Your task to perform on an android device: Show me the alarms in the clock app Image 0: 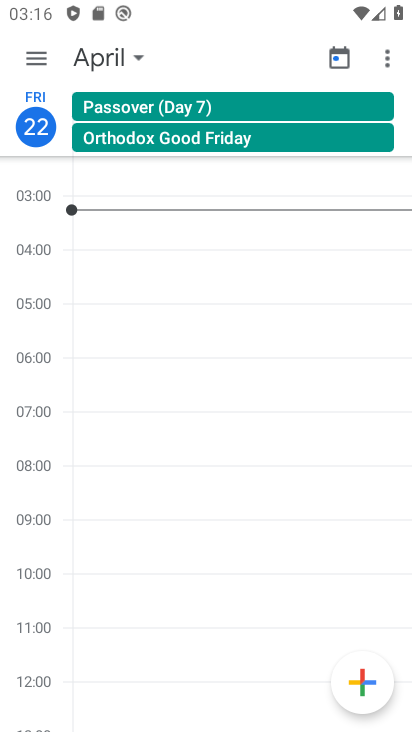
Step 0: press back button
Your task to perform on an android device: Show me the alarms in the clock app Image 1: 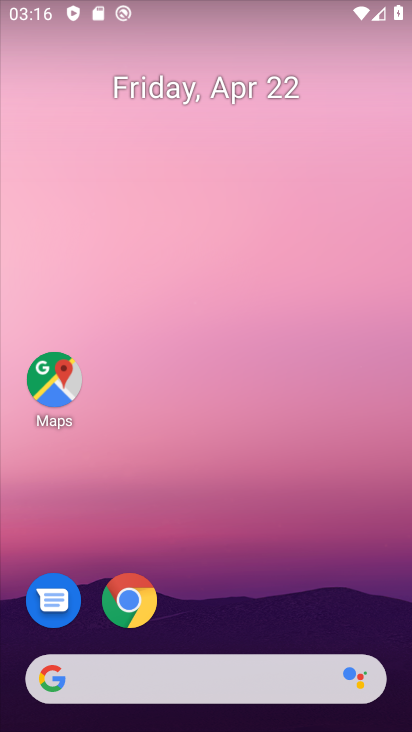
Step 1: drag from (226, 604) to (229, 179)
Your task to perform on an android device: Show me the alarms in the clock app Image 2: 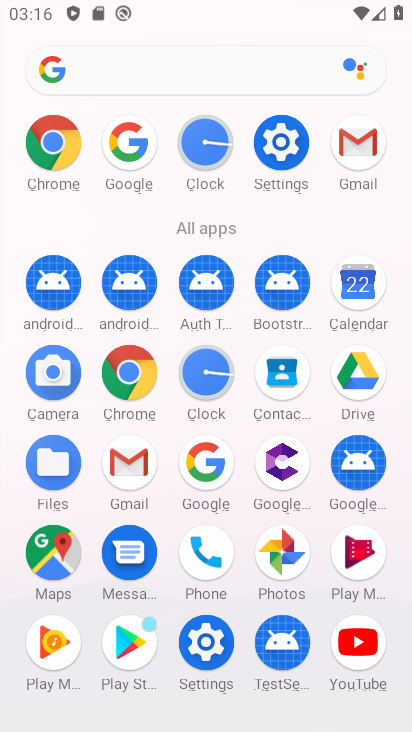
Step 2: click (196, 153)
Your task to perform on an android device: Show me the alarms in the clock app Image 3: 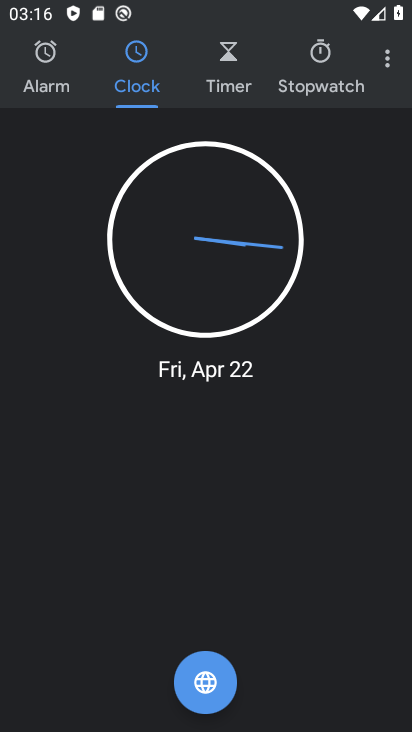
Step 3: click (66, 88)
Your task to perform on an android device: Show me the alarms in the clock app Image 4: 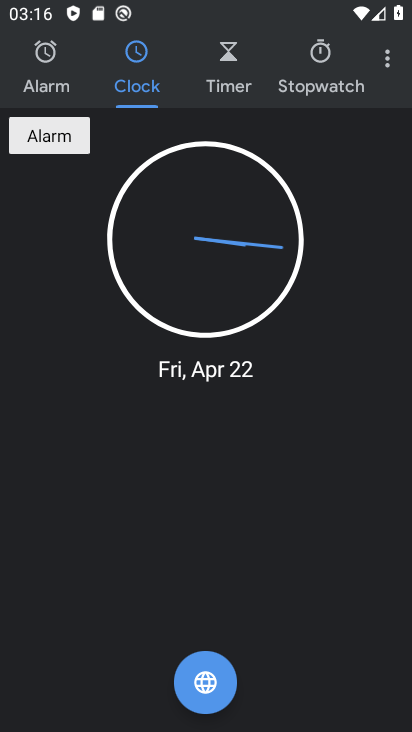
Step 4: click (52, 81)
Your task to perform on an android device: Show me the alarms in the clock app Image 5: 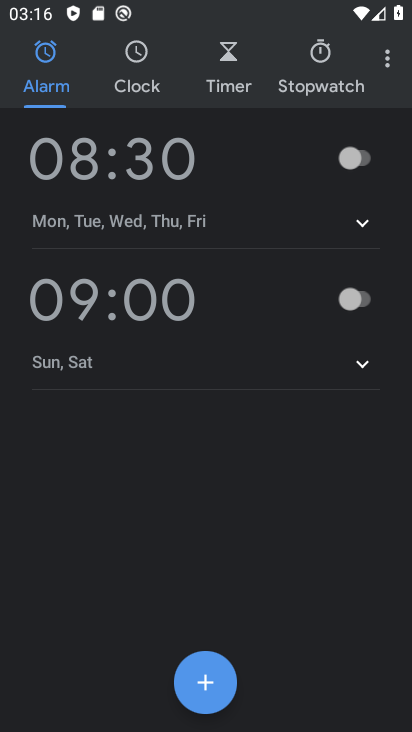
Step 5: task complete